Your task to perform on an android device: turn on javascript in the chrome app Image 0: 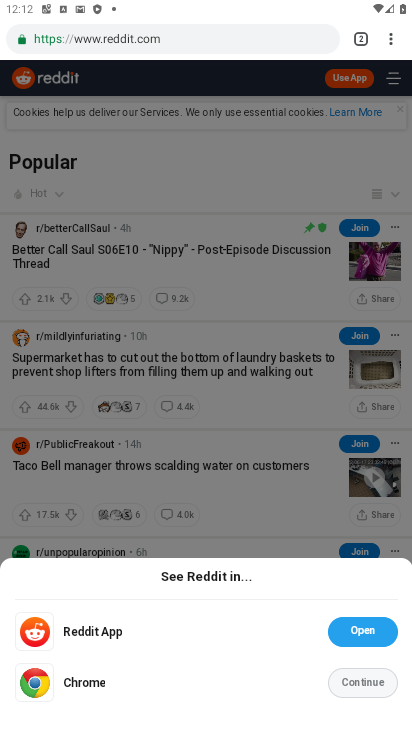
Step 0: press home button
Your task to perform on an android device: turn on javascript in the chrome app Image 1: 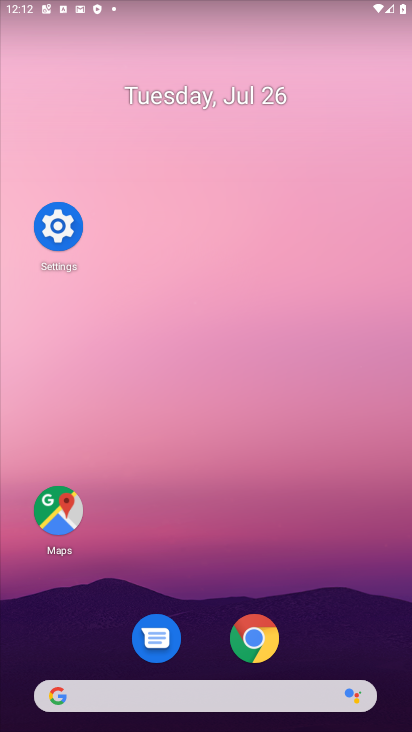
Step 1: click (249, 646)
Your task to perform on an android device: turn on javascript in the chrome app Image 2: 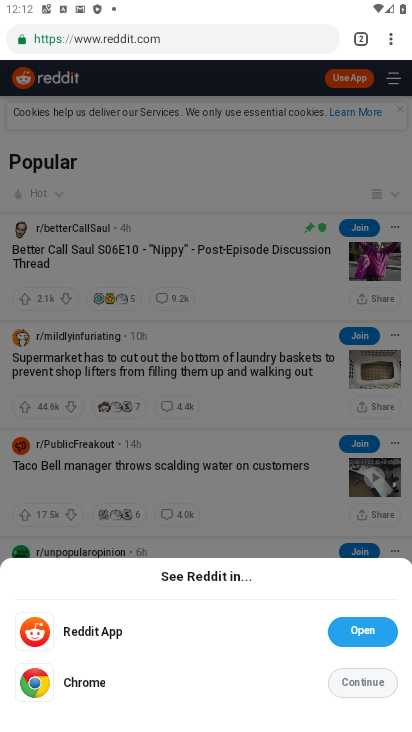
Step 2: click (392, 44)
Your task to perform on an android device: turn on javascript in the chrome app Image 3: 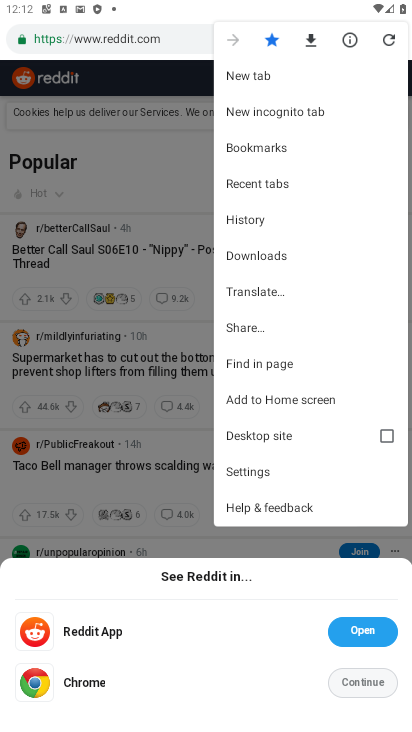
Step 3: click (290, 463)
Your task to perform on an android device: turn on javascript in the chrome app Image 4: 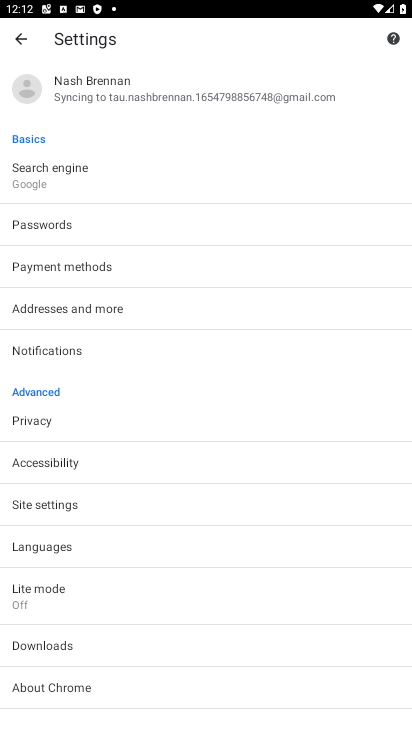
Step 4: click (101, 506)
Your task to perform on an android device: turn on javascript in the chrome app Image 5: 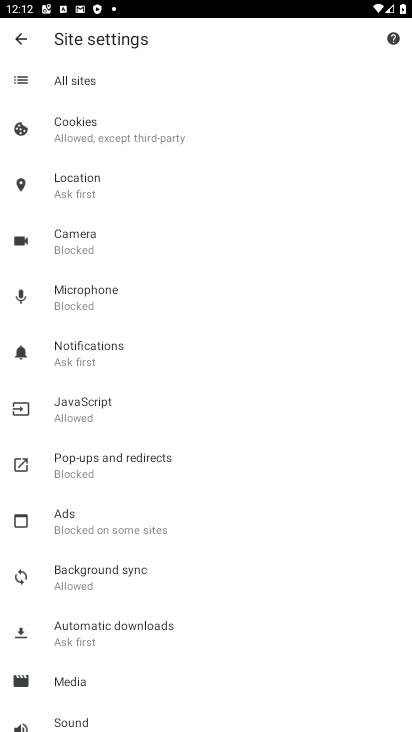
Step 5: click (146, 425)
Your task to perform on an android device: turn on javascript in the chrome app Image 6: 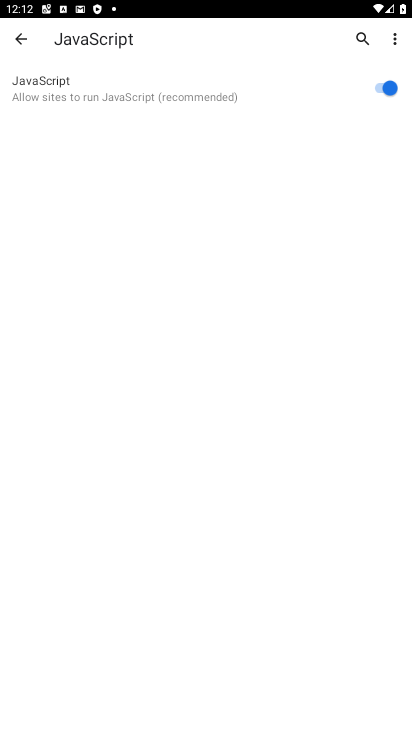
Step 6: task complete